Your task to perform on an android device: open chrome and create a bookmark for the current page Image 0: 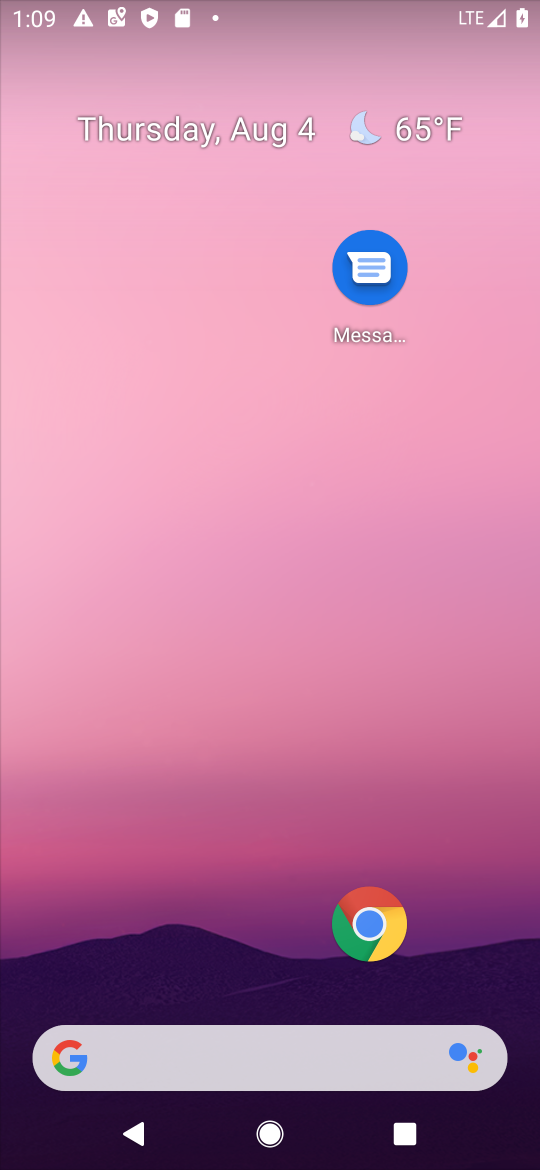
Step 0: click (377, 916)
Your task to perform on an android device: open chrome and create a bookmark for the current page Image 1: 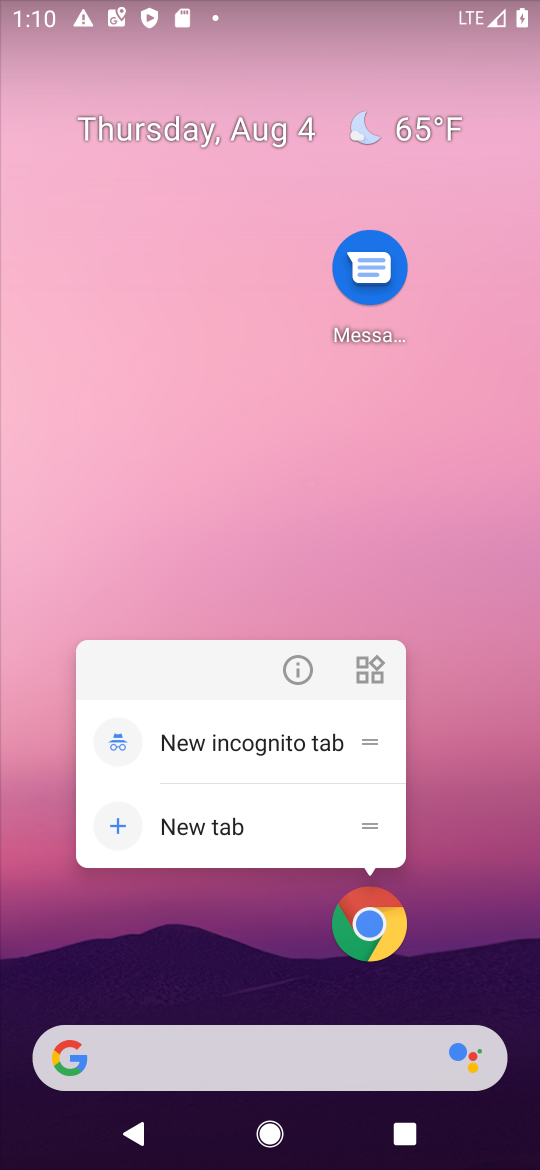
Step 1: click (358, 937)
Your task to perform on an android device: open chrome and create a bookmark for the current page Image 2: 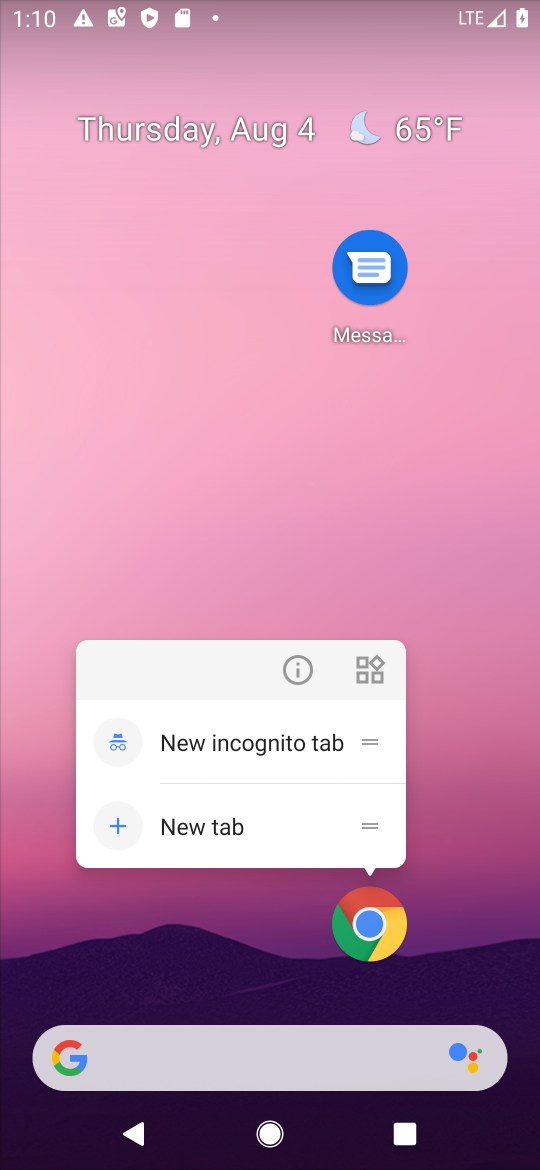
Step 2: click (370, 903)
Your task to perform on an android device: open chrome and create a bookmark for the current page Image 3: 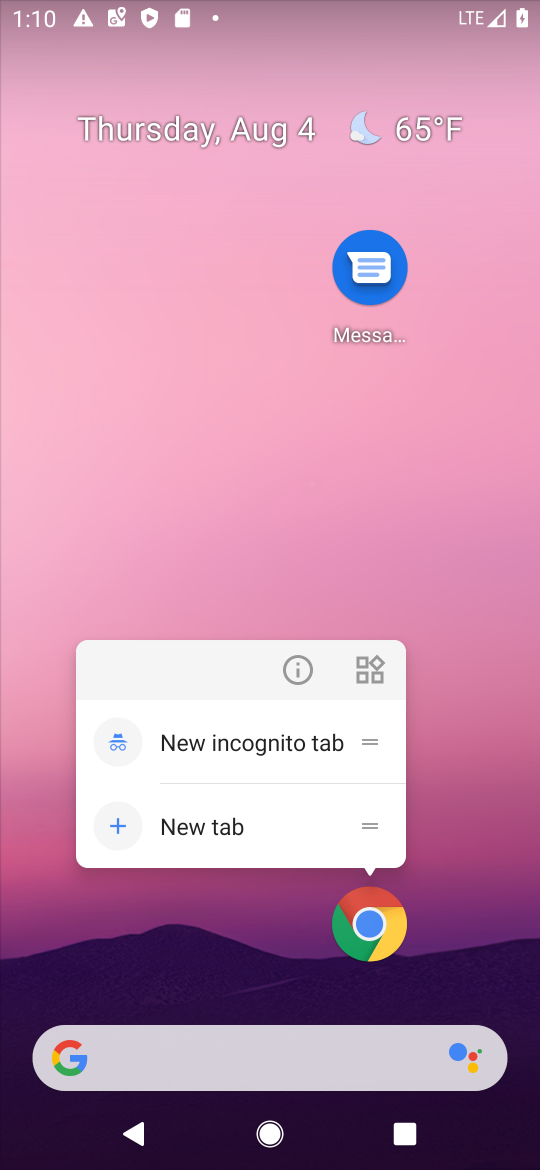
Step 3: task complete